Your task to perform on an android device: set default search engine in the chrome app Image 0: 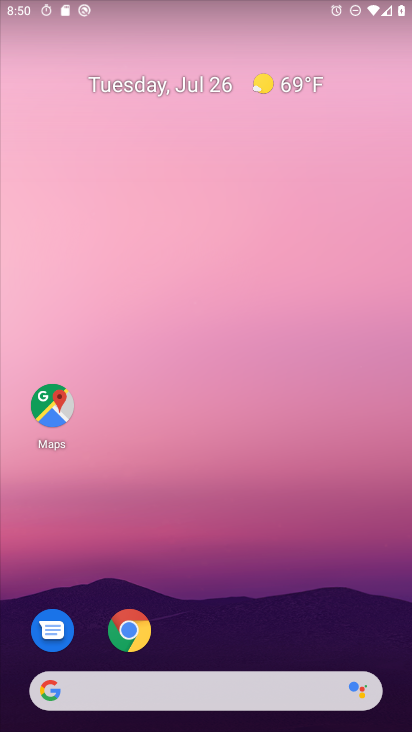
Step 0: drag from (196, 625) to (219, 251)
Your task to perform on an android device: set default search engine in the chrome app Image 1: 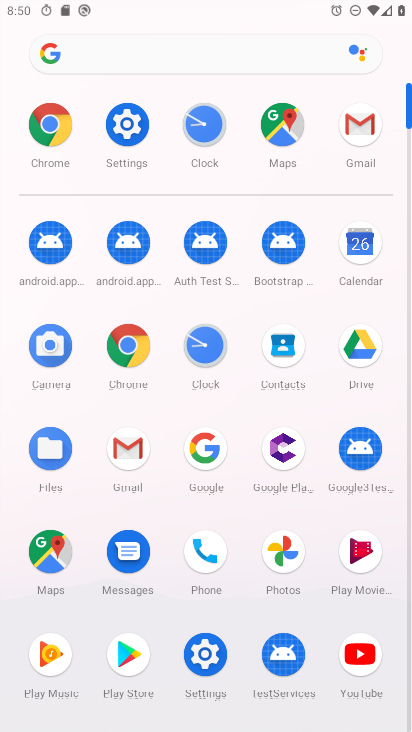
Step 1: click (136, 365)
Your task to perform on an android device: set default search engine in the chrome app Image 2: 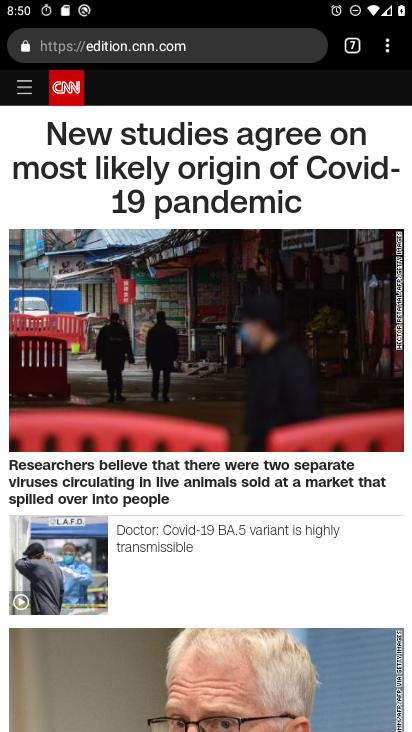
Step 2: click (379, 50)
Your task to perform on an android device: set default search engine in the chrome app Image 3: 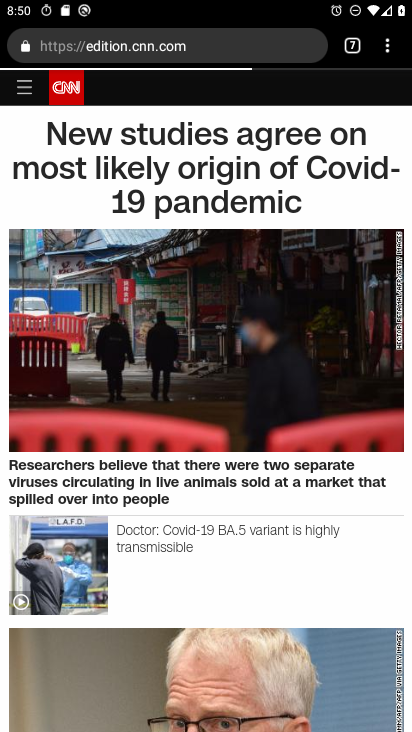
Step 3: click (387, 52)
Your task to perform on an android device: set default search engine in the chrome app Image 4: 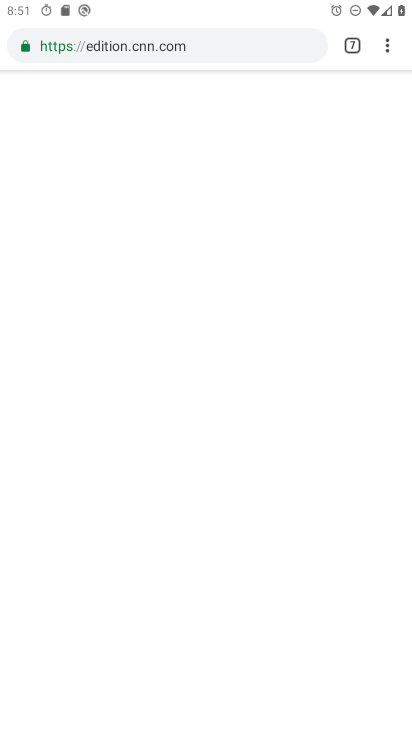
Step 4: click (384, 49)
Your task to perform on an android device: set default search engine in the chrome app Image 5: 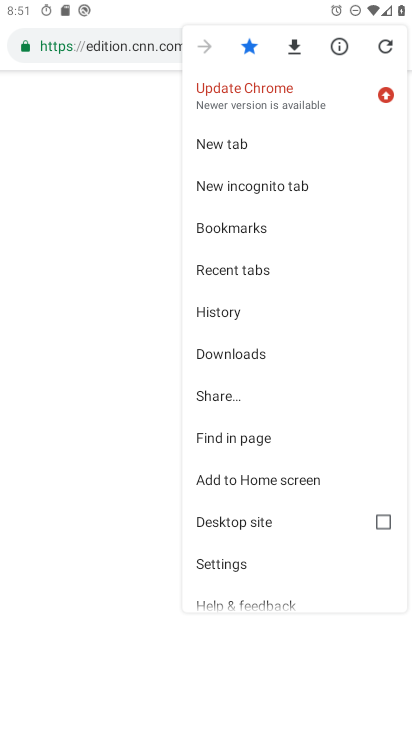
Step 5: click (248, 565)
Your task to perform on an android device: set default search engine in the chrome app Image 6: 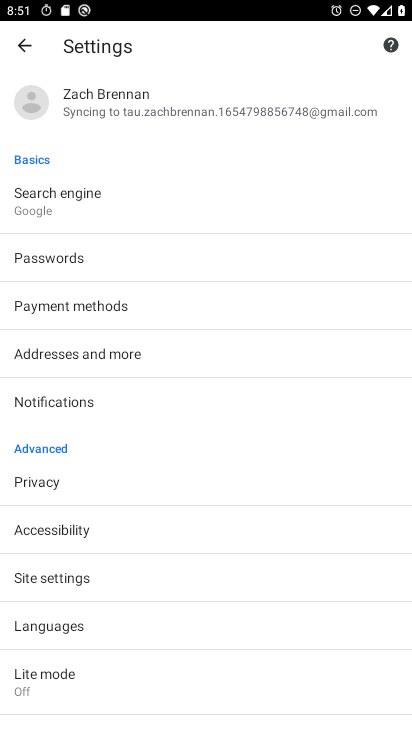
Step 6: click (152, 220)
Your task to perform on an android device: set default search engine in the chrome app Image 7: 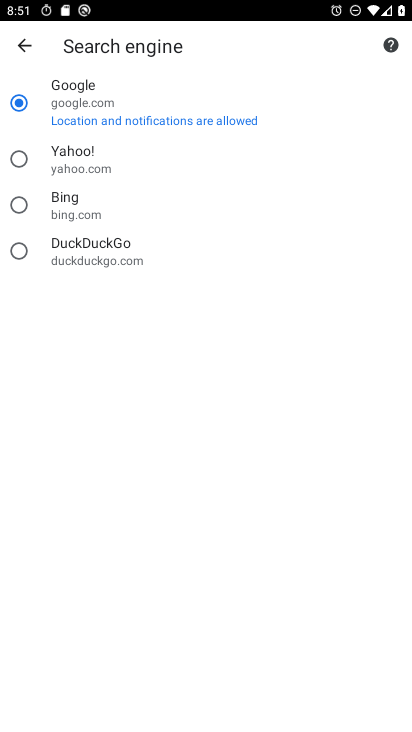
Step 7: click (164, 116)
Your task to perform on an android device: set default search engine in the chrome app Image 8: 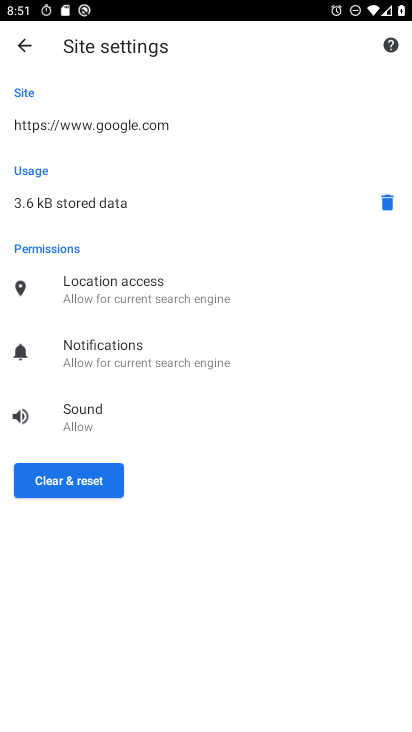
Step 8: click (71, 486)
Your task to perform on an android device: set default search engine in the chrome app Image 9: 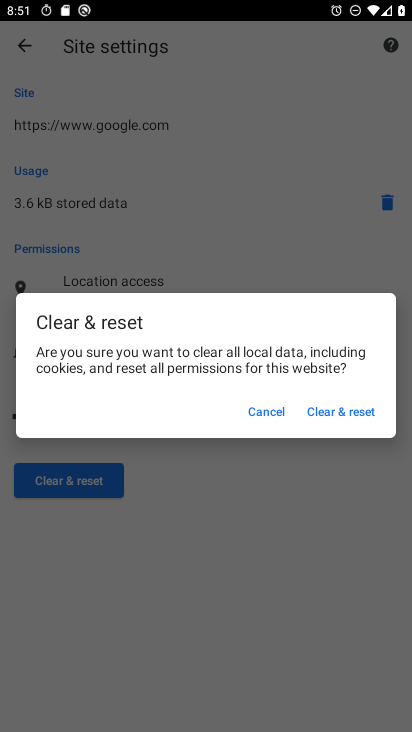
Step 9: click (347, 416)
Your task to perform on an android device: set default search engine in the chrome app Image 10: 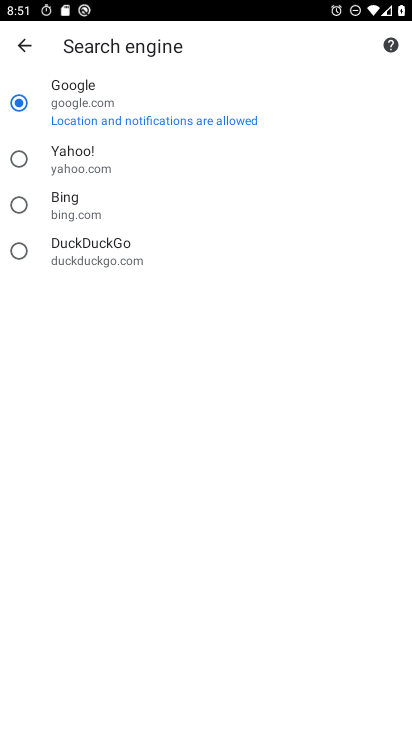
Step 10: task complete